Your task to perform on an android device: Do I have any events tomorrow? Image 0: 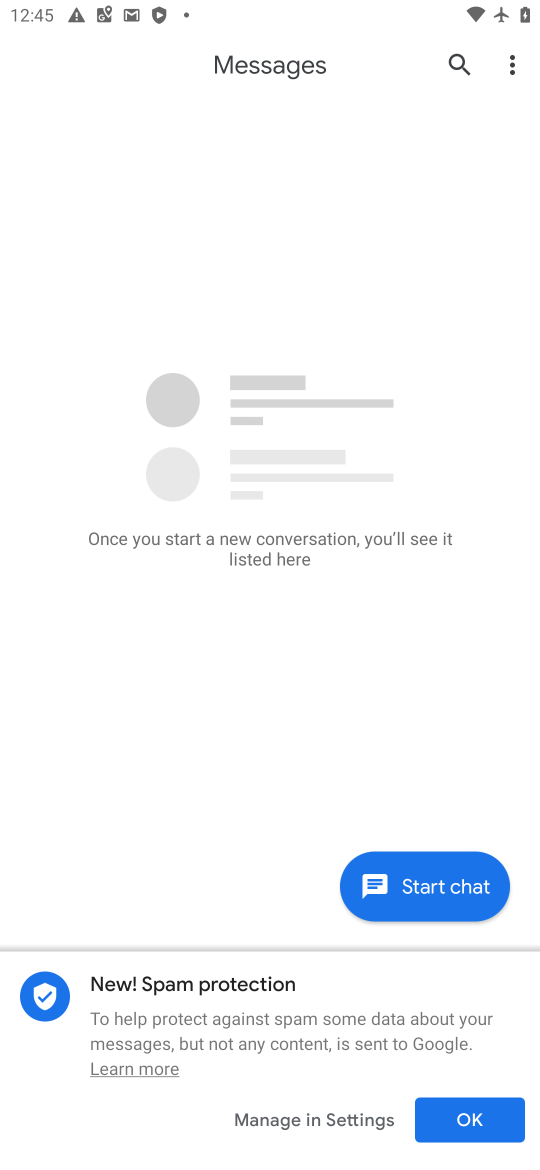
Step 0: task complete